Your task to perform on an android device: Go to privacy settings Image 0: 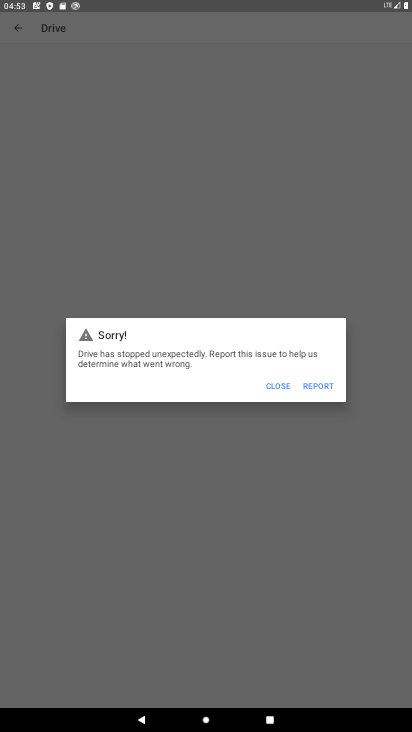
Step 0: press home button
Your task to perform on an android device: Go to privacy settings Image 1: 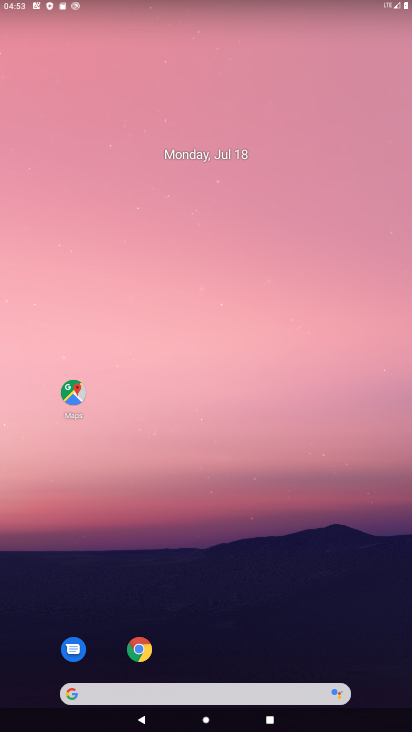
Step 1: drag from (213, 666) to (181, 138)
Your task to perform on an android device: Go to privacy settings Image 2: 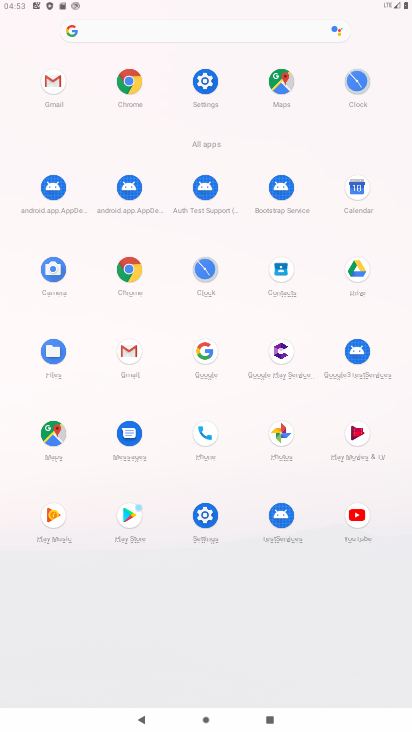
Step 2: click (204, 82)
Your task to perform on an android device: Go to privacy settings Image 3: 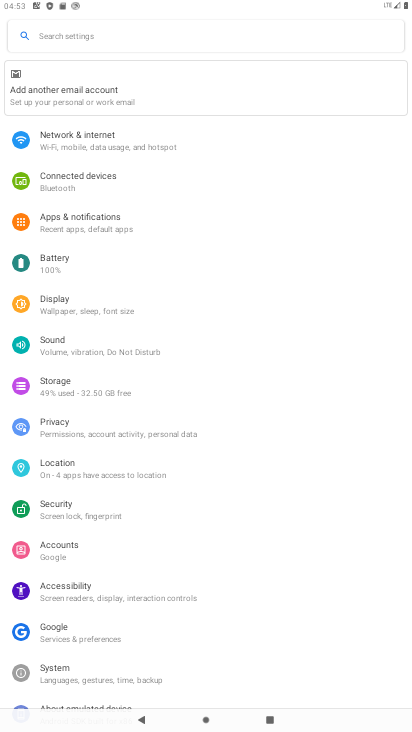
Step 3: click (55, 435)
Your task to perform on an android device: Go to privacy settings Image 4: 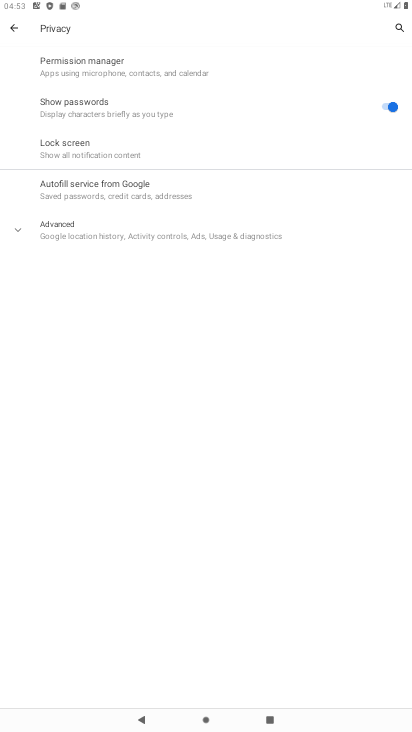
Step 4: task complete